Your task to perform on an android device: Search for pizza restaurants on Maps Image 0: 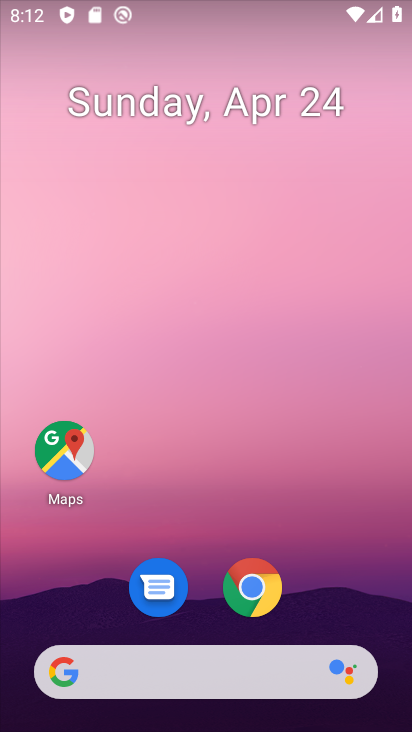
Step 0: drag from (374, 547) to (396, 158)
Your task to perform on an android device: Search for pizza restaurants on Maps Image 1: 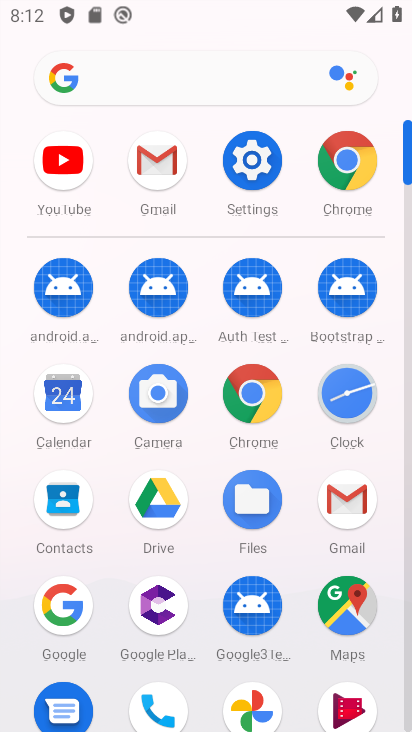
Step 1: click (346, 596)
Your task to perform on an android device: Search for pizza restaurants on Maps Image 2: 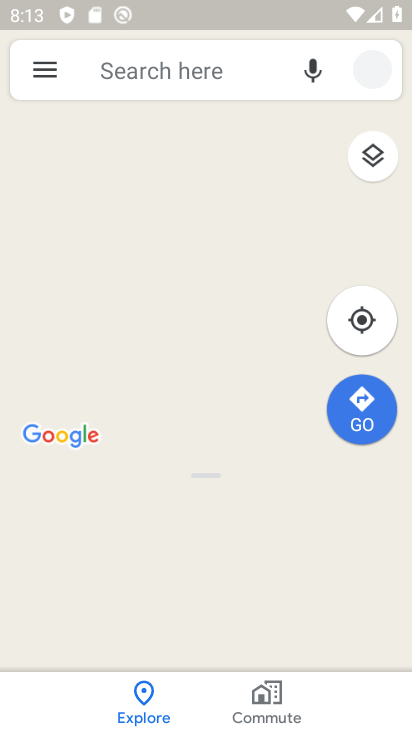
Step 2: click (177, 69)
Your task to perform on an android device: Search for pizza restaurants on Maps Image 3: 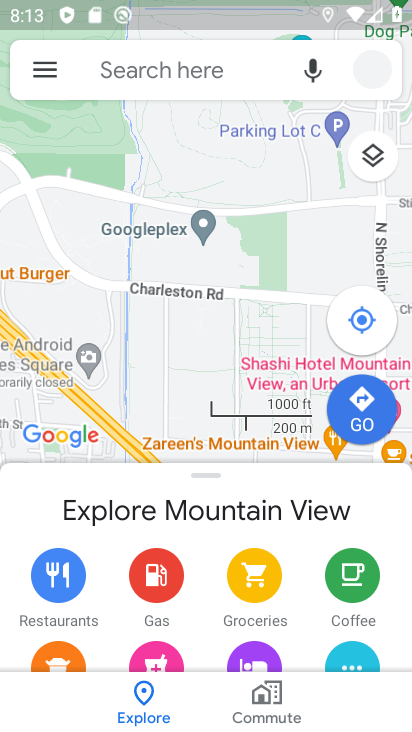
Step 3: click (184, 73)
Your task to perform on an android device: Search for pizza restaurants on Maps Image 4: 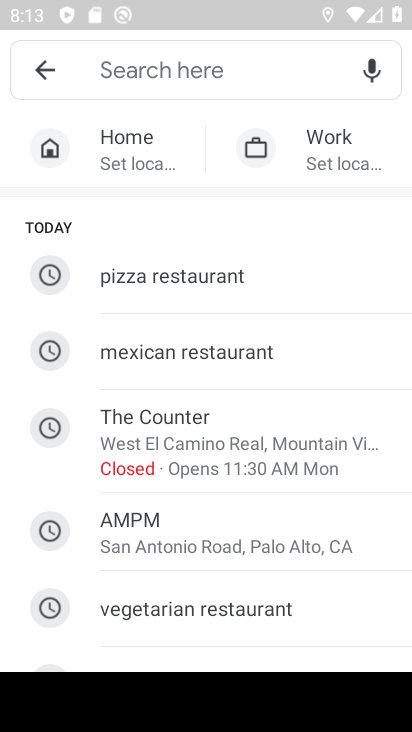
Step 4: click (191, 270)
Your task to perform on an android device: Search for pizza restaurants on Maps Image 5: 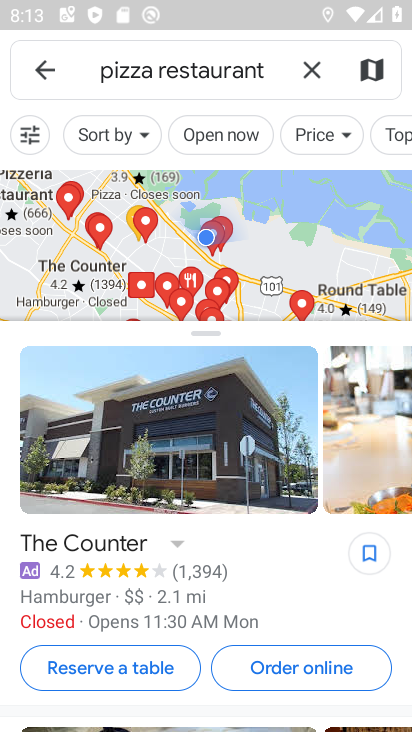
Step 5: task complete